Your task to perform on an android device: open app "DoorDash - Food Delivery" Image 0: 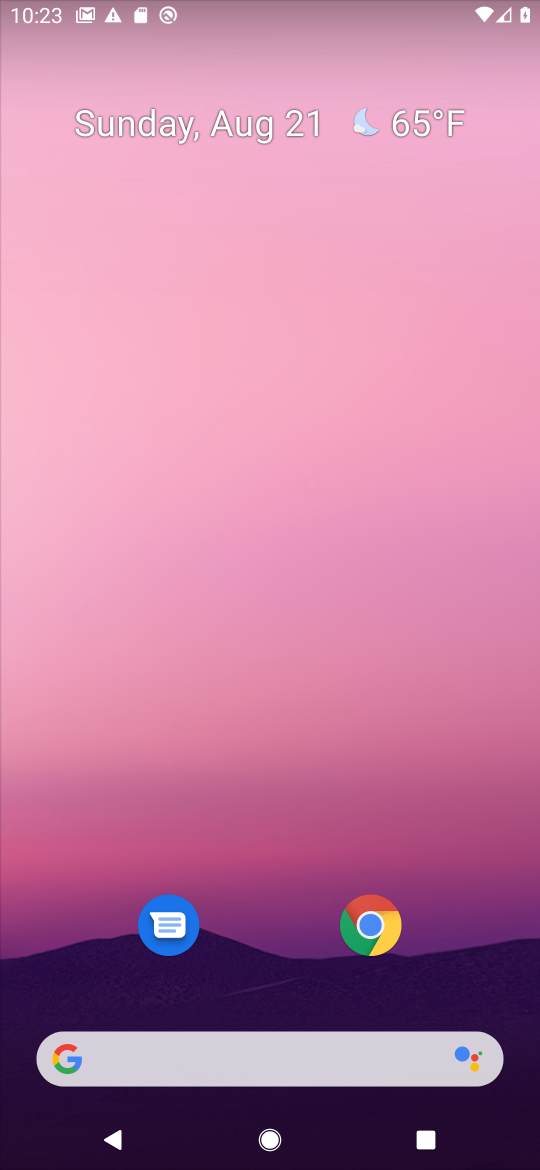
Step 0: drag from (348, 524) to (394, 6)
Your task to perform on an android device: open app "DoorDash - Food Delivery" Image 1: 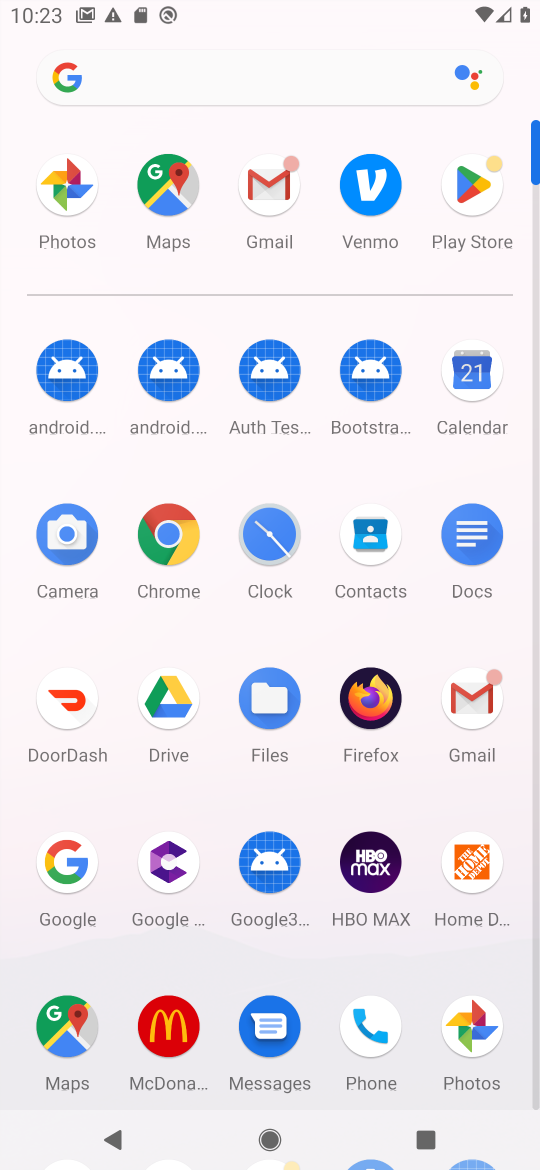
Step 1: click (470, 188)
Your task to perform on an android device: open app "DoorDash - Food Delivery" Image 2: 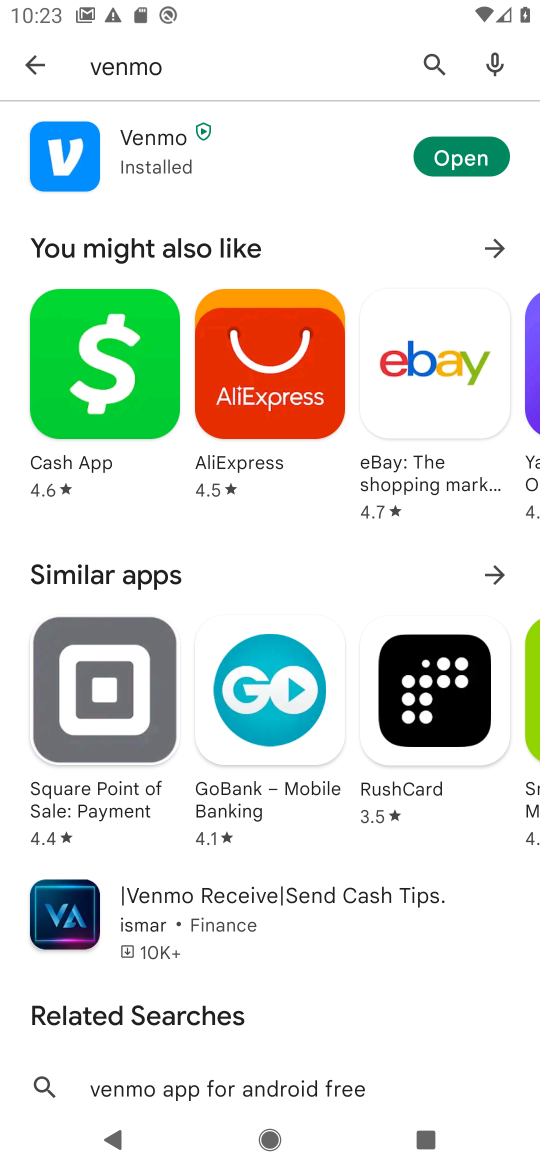
Step 2: click (425, 64)
Your task to perform on an android device: open app "DoorDash - Food Delivery" Image 3: 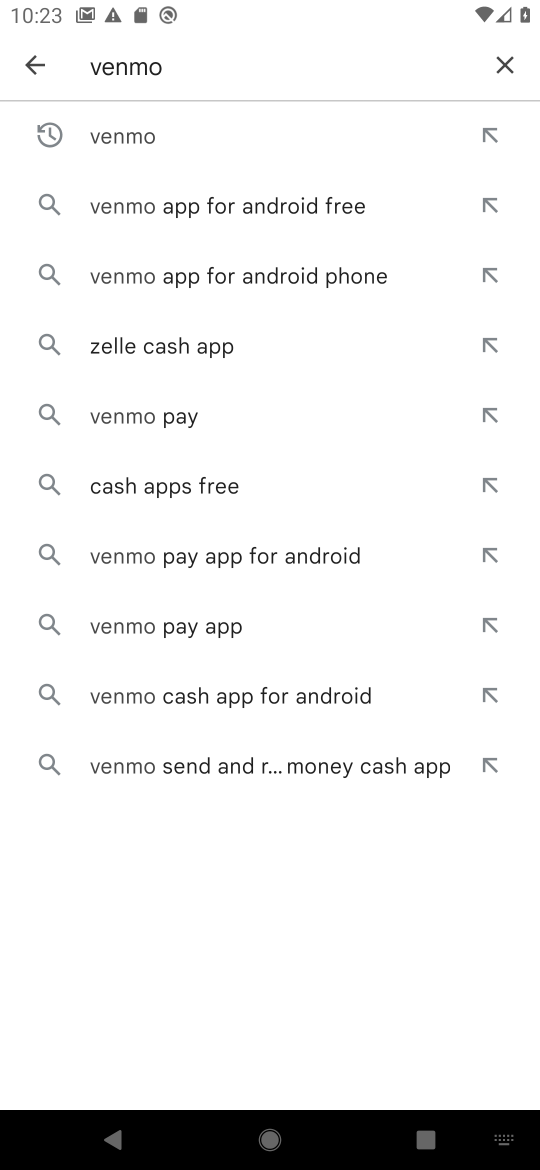
Step 3: click (497, 51)
Your task to perform on an android device: open app "DoorDash - Food Delivery" Image 4: 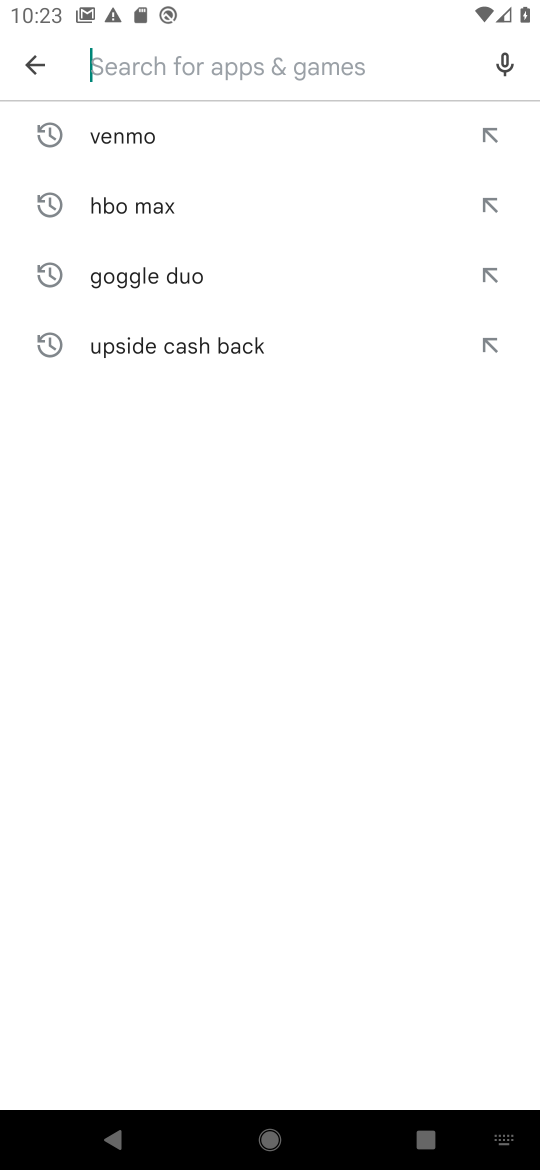
Step 4: click (195, 84)
Your task to perform on an android device: open app "DoorDash - Food Delivery" Image 5: 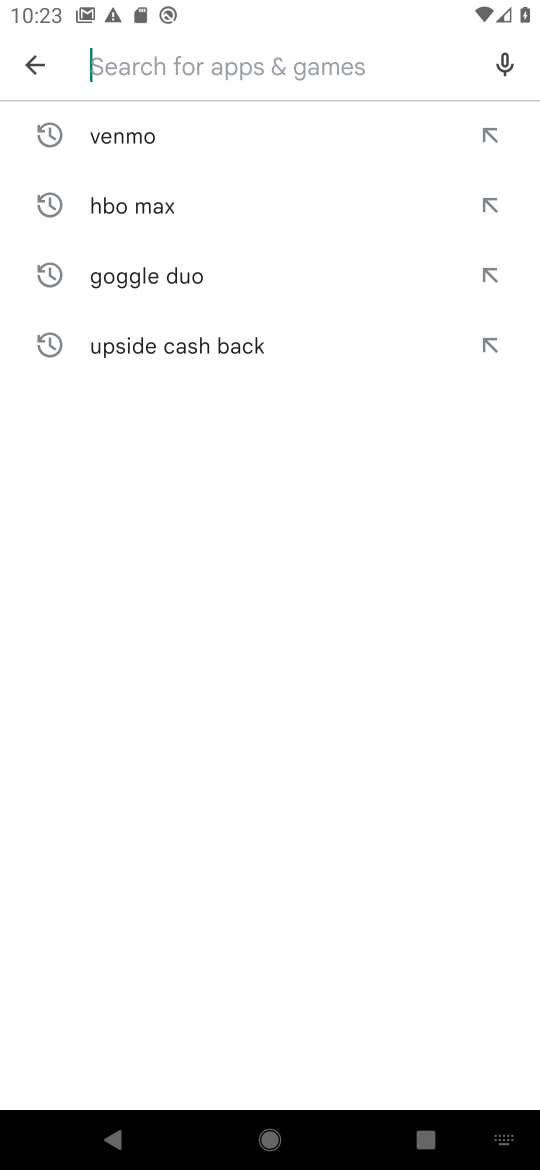
Step 5: type "DoorDash"
Your task to perform on an android device: open app "DoorDash - Food Delivery" Image 6: 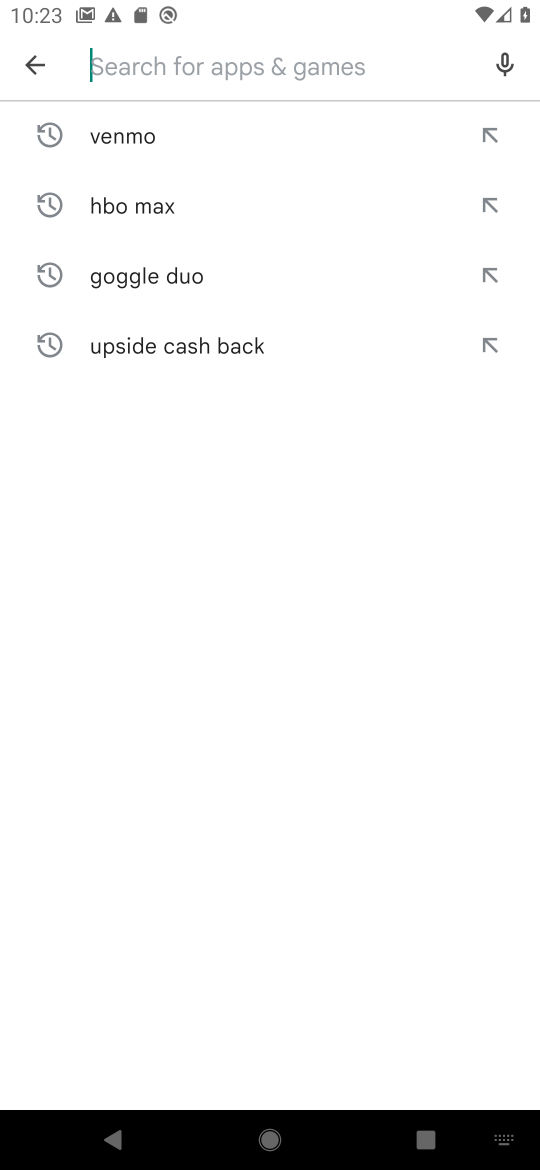
Step 6: click (367, 737)
Your task to perform on an android device: open app "DoorDash - Food Delivery" Image 7: 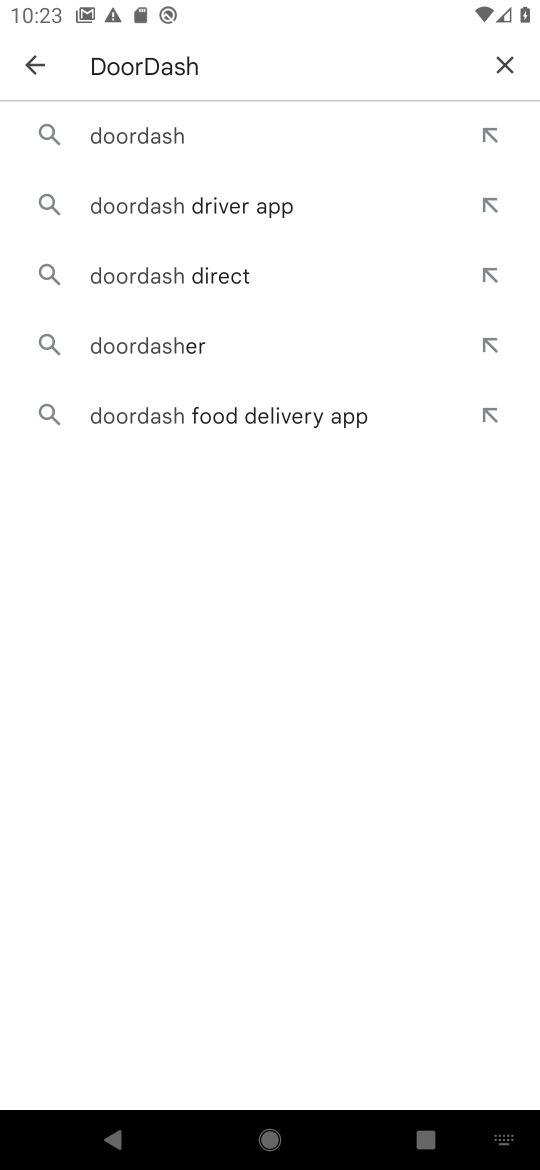
Step 7: click (182, 137)
Your task to perform on an android device: open app "DoorDash - Food Delivery" Image 8: 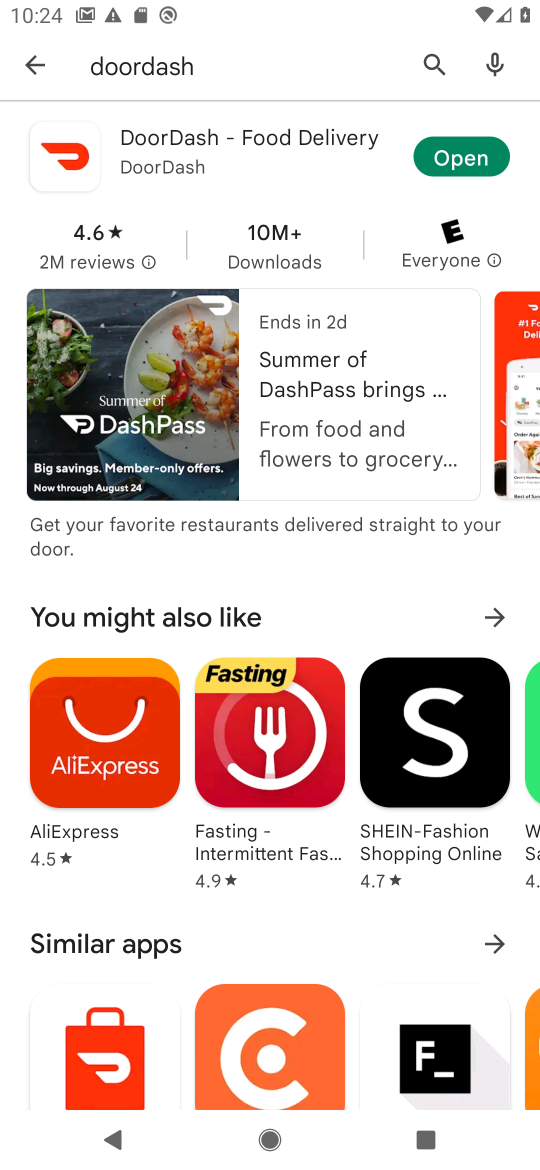
Step 8: click (461, 148)
Your task to perform on an android device: open app "DoorDash - Food Delivery" Image 9: 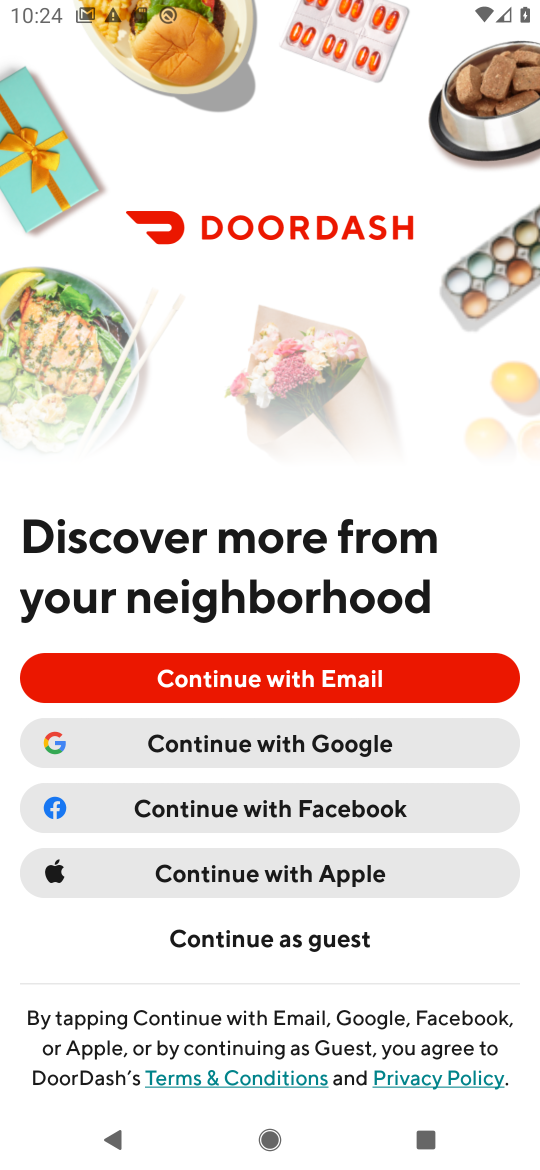
Step 9: task complete